Your task to perform on an android device: set the timer Image 0: 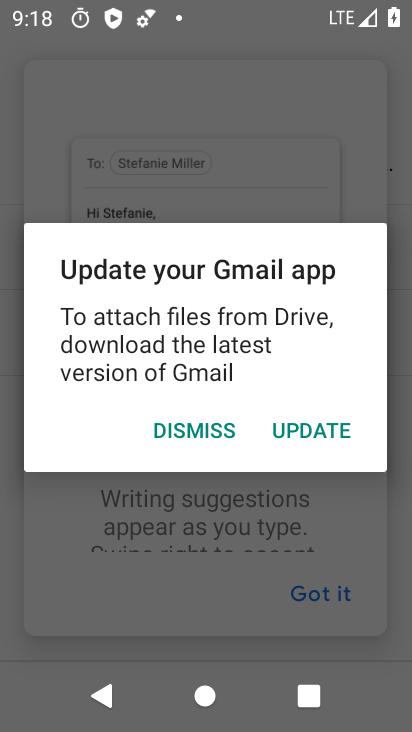
Step 0: press home button
Your task to perform on an android device: set the timer Image 1: 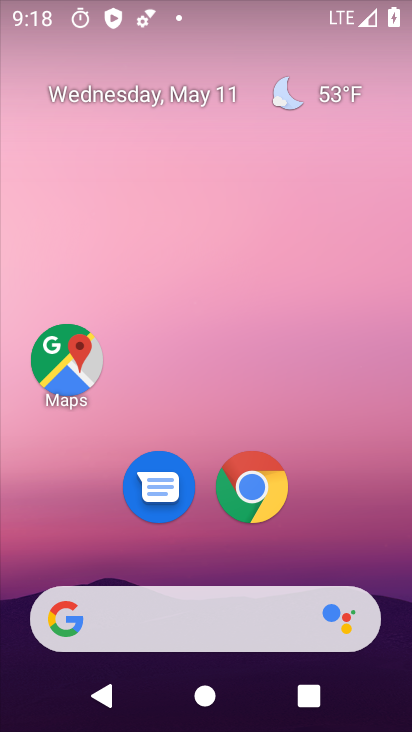
Step 1: drag from (353, 514) to (215, 44)
Your task to perform on an android device: set the timer Image 2: 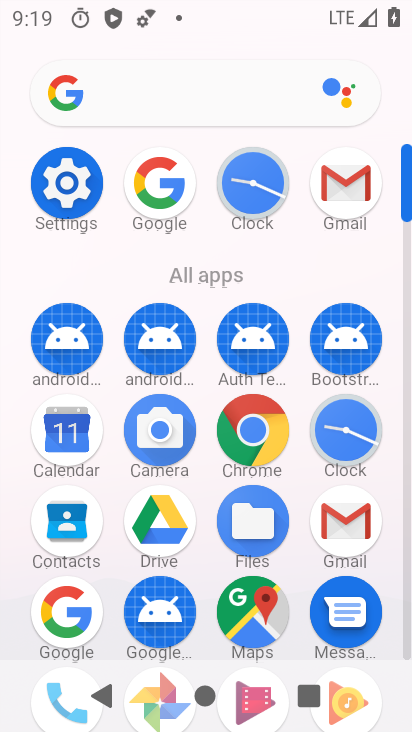
Step 2: click (253, 181)
Your task to perform on an android device: set the timer Image 3: 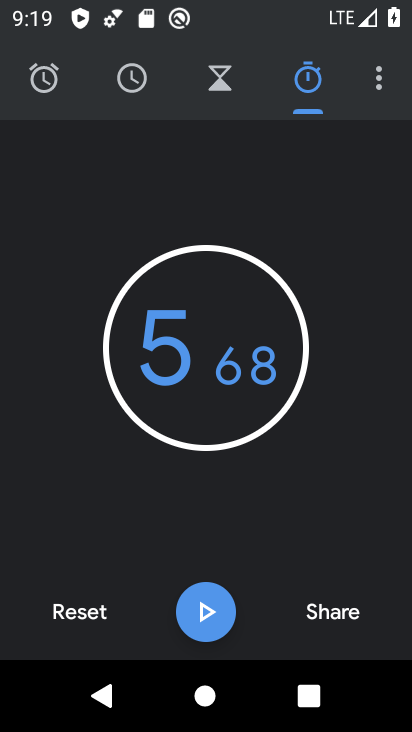
Step 3: click (221, 85)
Your task to perform on an android device: set the timer Image 4: 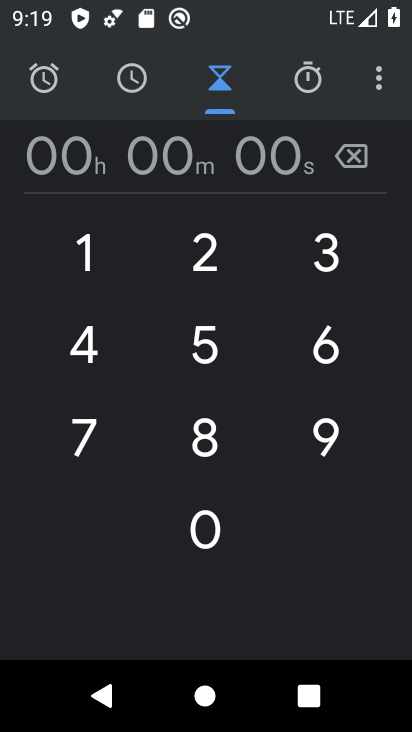
Step 4: type "123"
Your task to perform on an android device: set the timer Image 5: 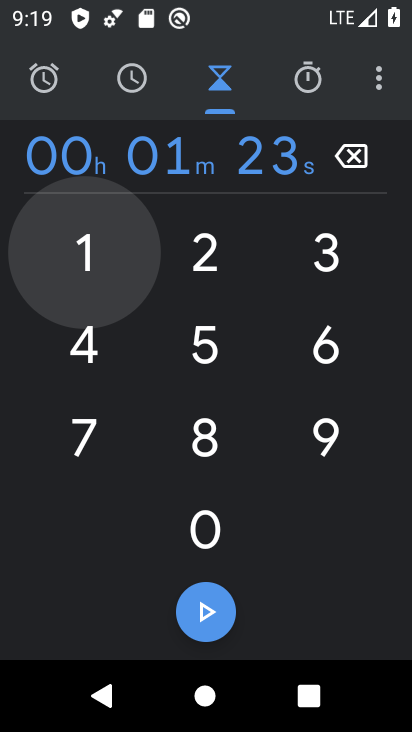
Step 5: click (208, 612)
Your task to perform on an android device: set the timer Image 6: 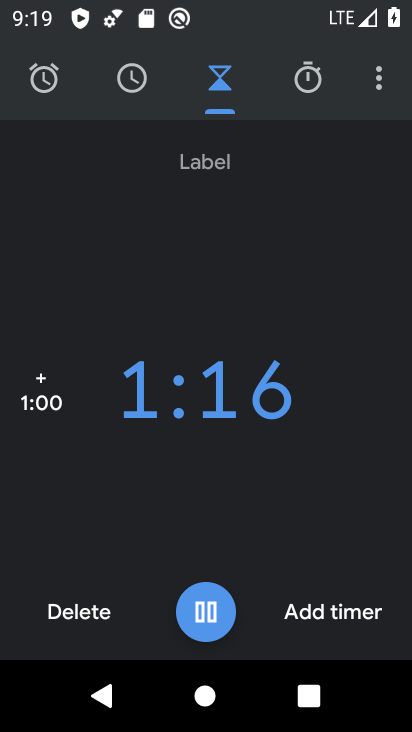
Step 6: click (206, 610)
Your task to perform on an android device: set the timer Image 7: 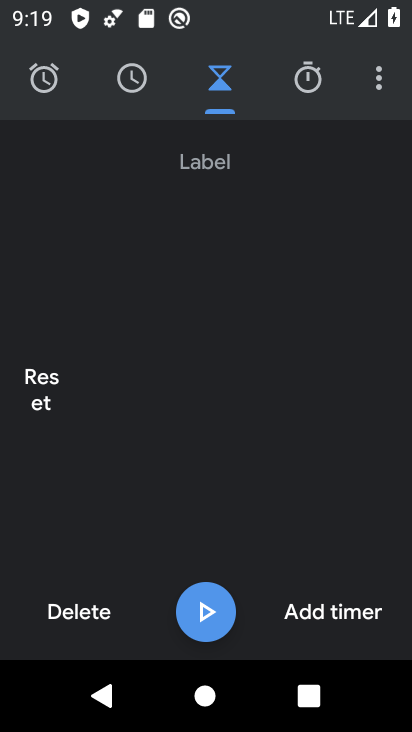
Step 7: task complete